Your task to perform on an android device: open app "Expedia: Hotels, Flights & Car" (install if not already installed) Image 0: 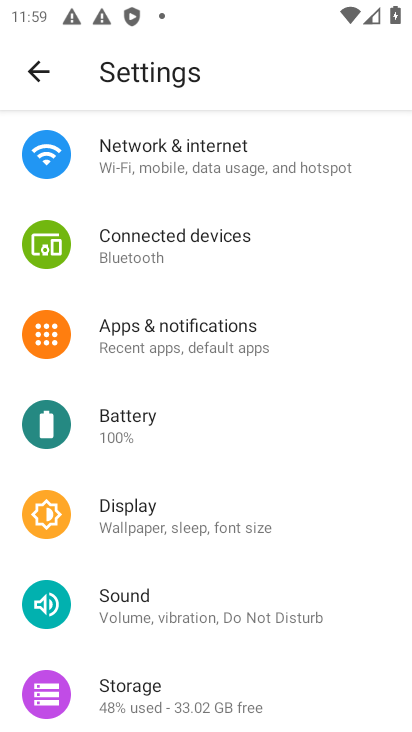
Step 0: press home button
Your task to perform on an android device: open app "Expedia: Hotels, Flights & Car" (install if not already installed) Image 1: 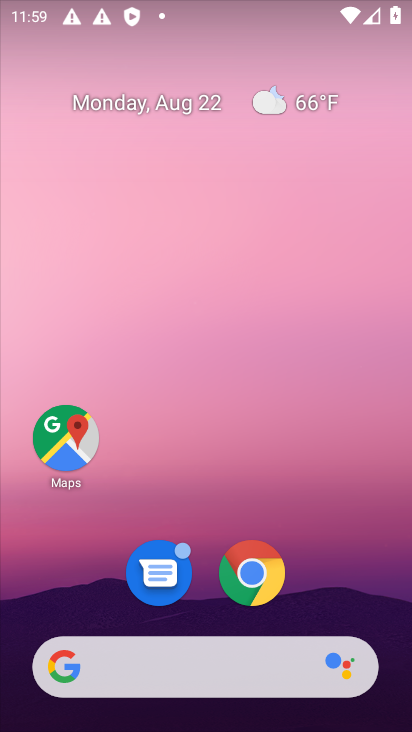
Step 1: drag from (188, 365) to (188, 185)
Your task to perform on an android device: open app "Expedia: Hotels, Flights & Car" (install if not already installed) Image 2: 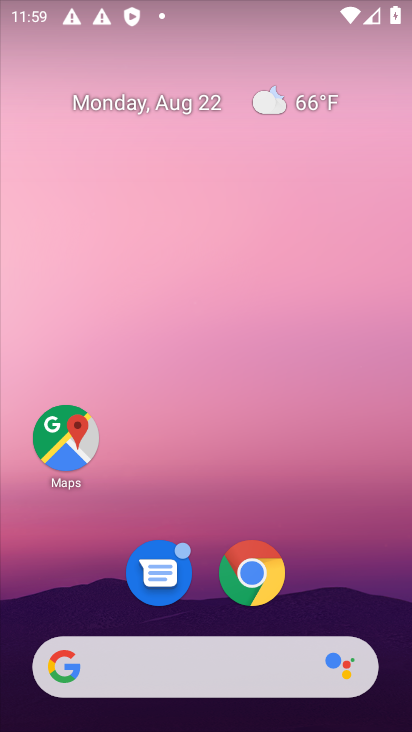
Step 2: drag from (219, 470) to (277, 147)
Your task to perform on an android device: open app "Expedia: Hotels, Flights & Car" (install if not already installed) Image 3: 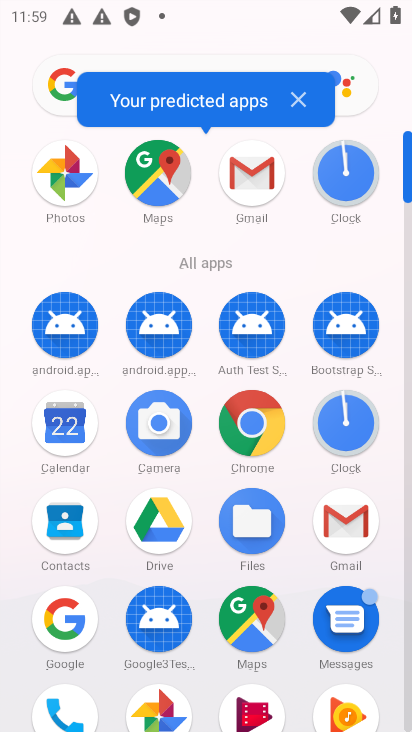
Step 3: drag from (200, 565) to (242, 288)
Your task to perform on an android device: open app "Expedia: Hotels, Flights & Car" (install if not already installed) Image 4: 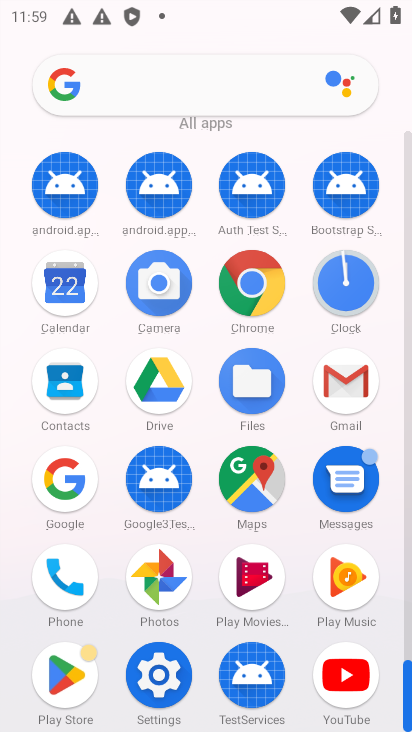
Step 4: click (74, 663)
Your task to perform on an android device: open app "Expedia: Hotels, Flights & Car" (install if not already installed) Image 5: 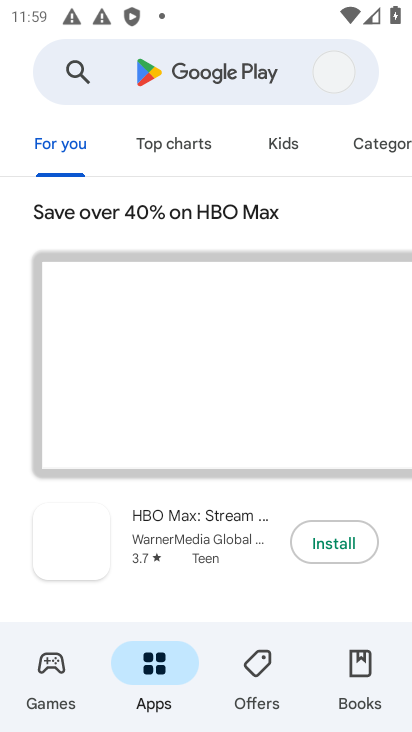
Step 5: click (67, 73)
Your task to perform on an android device: open app "Expedia: Hotels, Flights & Car" (install if not already installed) Image 6: 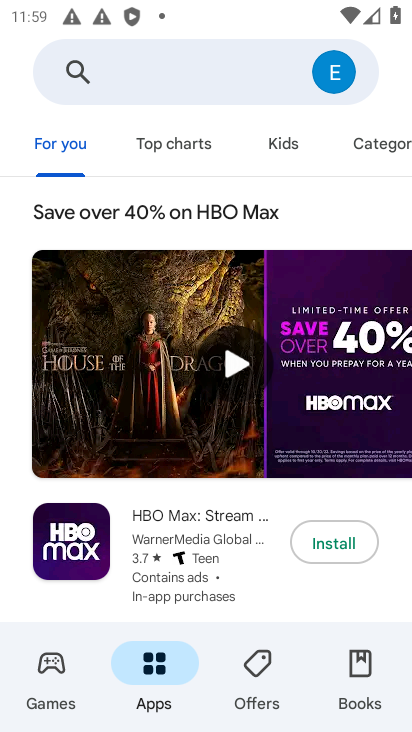
Step 6: click (173, 74)
Your task to perform on an android device: open app "Expedia: Hotels, Flights & Car" (install if not already installed) Image 7: 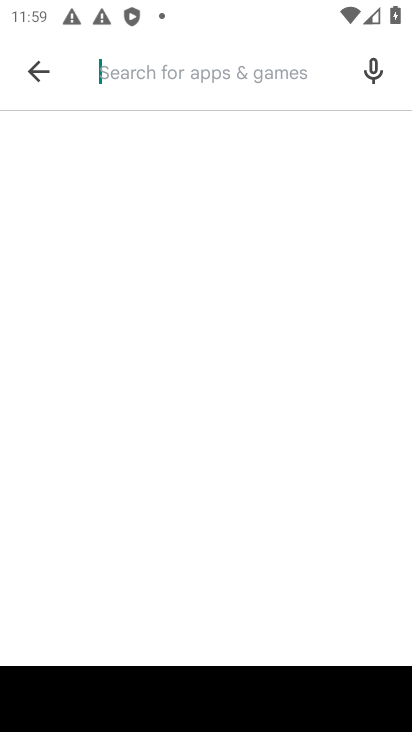
Step 7: type "Expedia: Hotels, Flights & Car"
Your task to perform on an android device: open app "Expedia: Hotels, Flights & Car" (install if not already installed) Image 8: 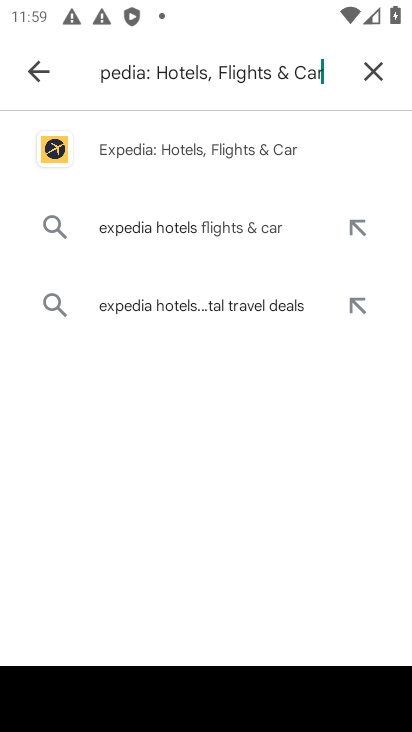
Step 8: click (231, 148)
Your task to perform on an android device: open app "Expedia: Hotels, Flights & Car" (install if not already installed) Image 9: 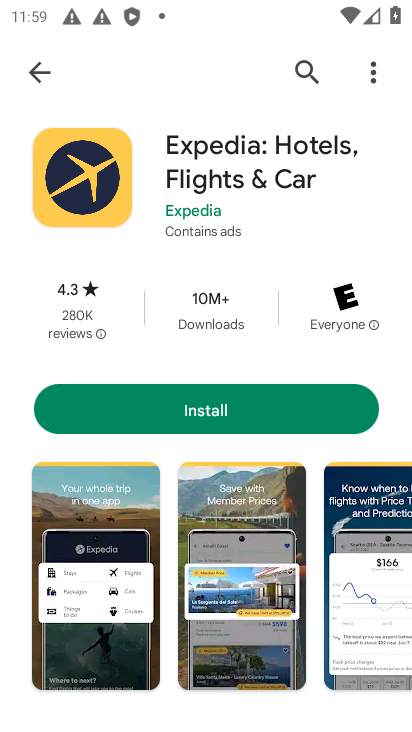
Step 9: click (246, 407)
Your task to perform on an android device: open app "Expedia: Hotels, Flights & Car" (install if not already installed) Image 10: 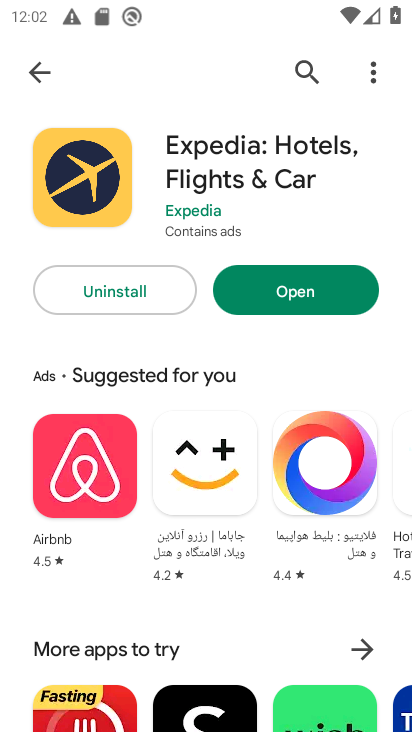
Step 10: click (304, 299)
Your task to perform on an android device: open app "Expedia: Hotels, Flights & Car" (install if not already installed) Image 11: 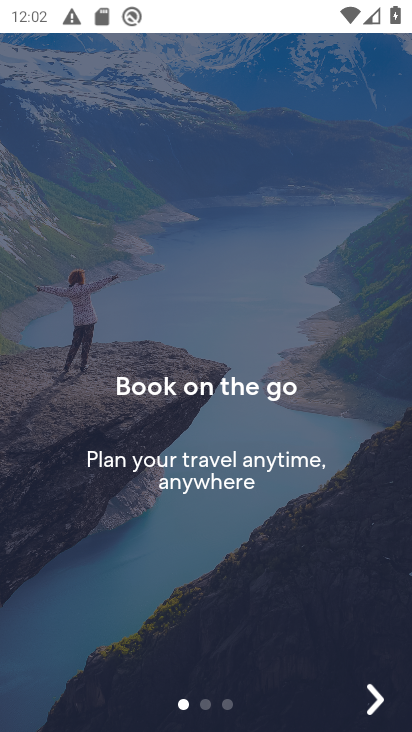
Step 11: task complete